Your task to perform on an android device: Open Wikipedia Image 0: 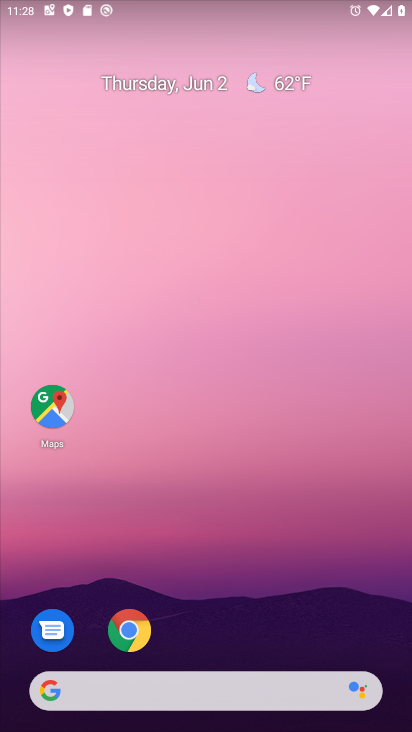
Step 0: press home button
Your task to perform on an android device: Open Wikipedia Image 1: 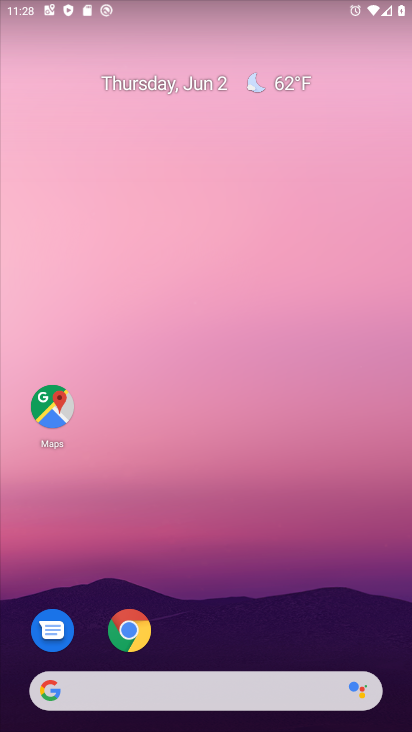
Step 1: click (125, 632)
Your task to perform on an android device: Open Wikipedia Image 2: 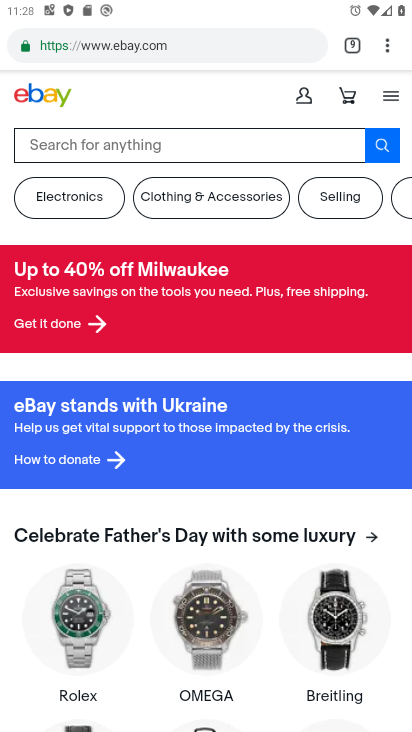
Step 2: drag from (388, 47) to (290, 93)
Your task to perform on an android device: Open Wikipedia Image 3: 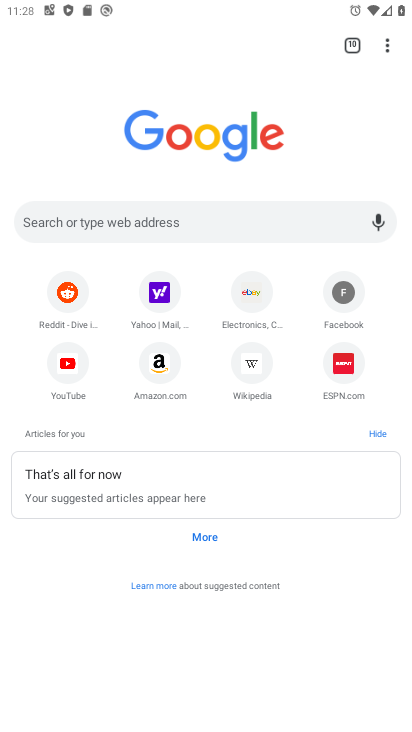
Step 3: click (255, 375)
Your task to perform on an android device: Open Wikipedia Image 4: 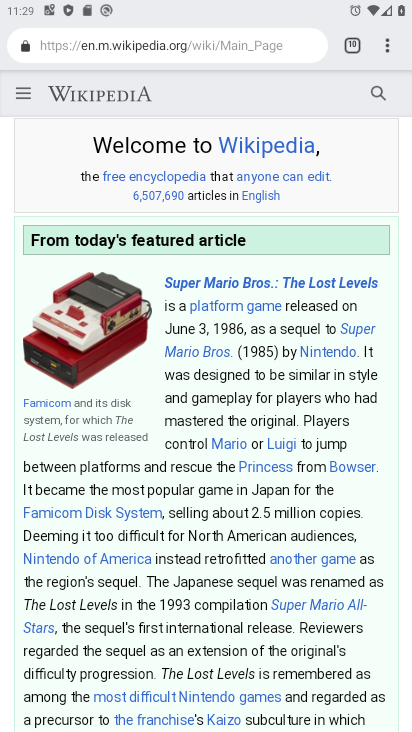
Step 4: task complete